Your task to perform on an android device: Find coffee shops on Maps Image 0: 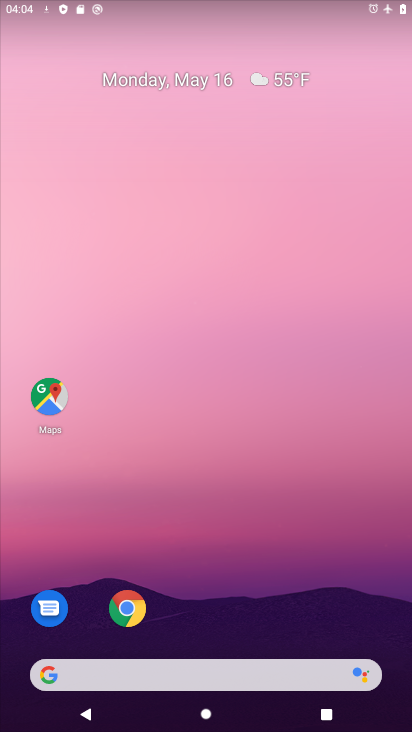
Step 0: click (52, 411)
Your task to perform on an android device: Find coffee shops on Maps Image 1: 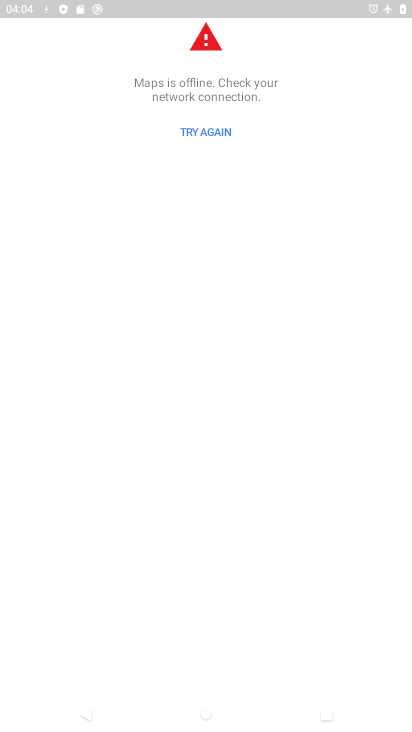
Step 1: click (205, 136)
Your task to perform on an android device: Find coffee shops on Maps Image 2: 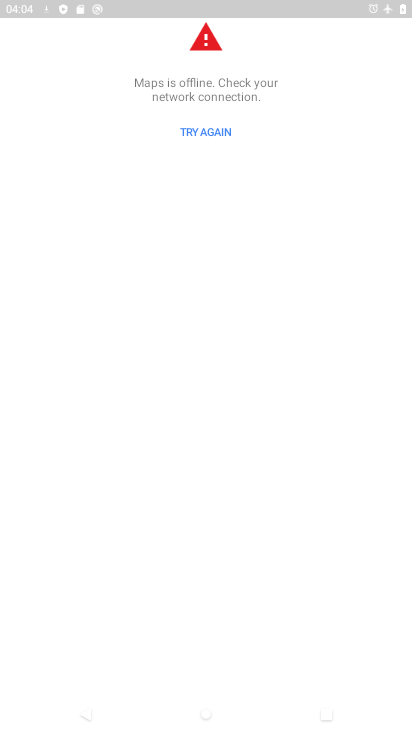
Step 2: task complete